Your task to perform on an android device: turn notification dots on Image 0: 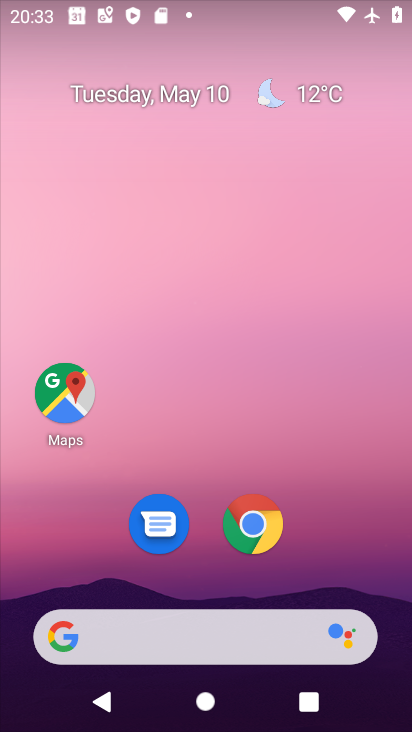
Step 0: drag from (328, 519) to (331, 4)
Your task to perform on an android device: turn notification dots on Image 1: 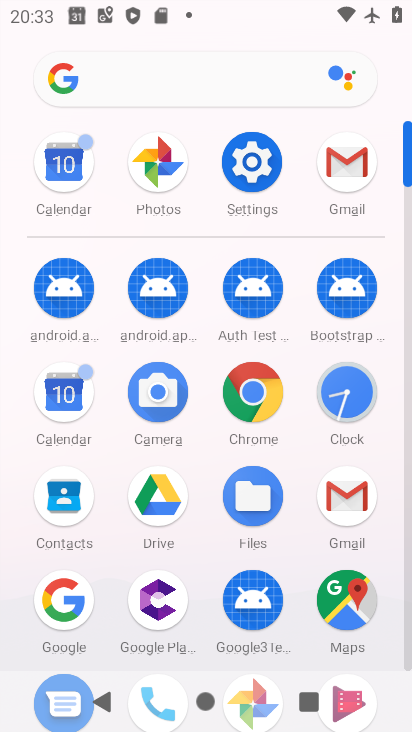
Step 1: click (252, 155)
Your task to perform on an android device: turn notification dots on Image 2: 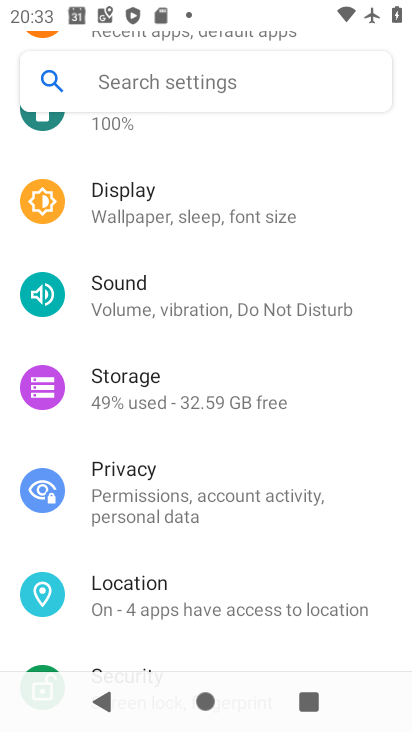
Step 2: drag from (221, 245) to (224, 581)
Your task to perform on an android device: turn notification dots on Image 3: 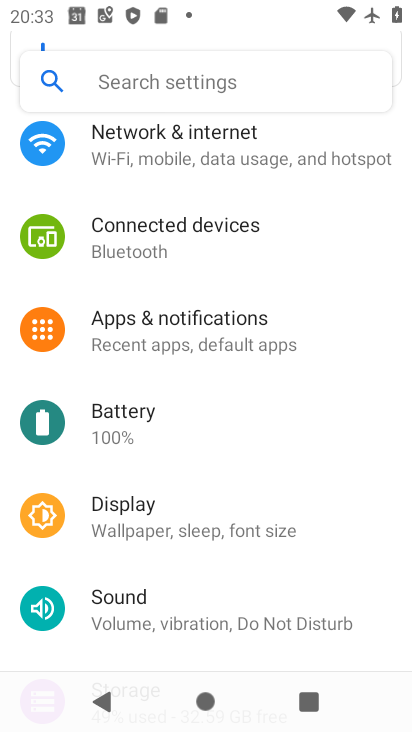
Step 3: click (218, 333)
Your task to perform on an android device: turn notification dots on Image 4: 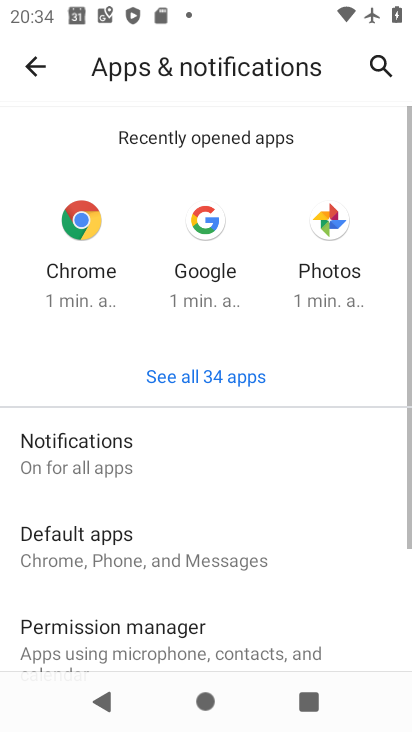
Step 4: click (135, 448)
Your task to perform on an android device: turn notification dots on Image 5: 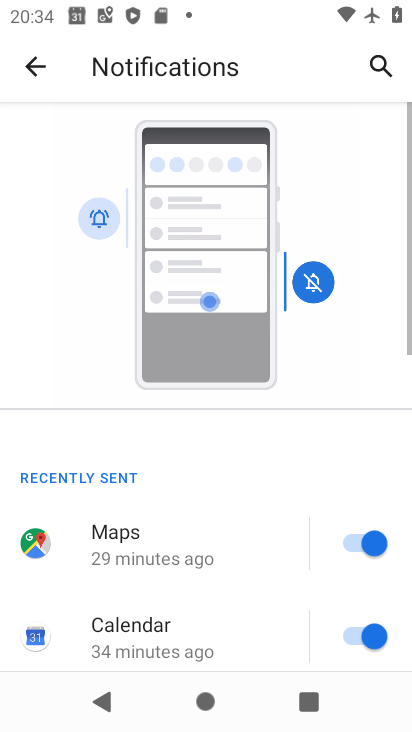
Step 5: drag from (240, 557) to (262, 145)
Your task to perform on an android device: turn notification dots on Image 6: 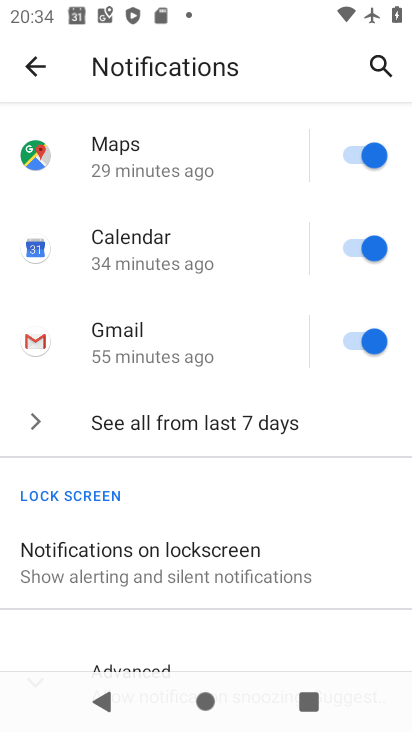
Step 6: drag from (199, 471) to (196, 150)
Your task to perform on an android device: turn notification dots on Image 7: 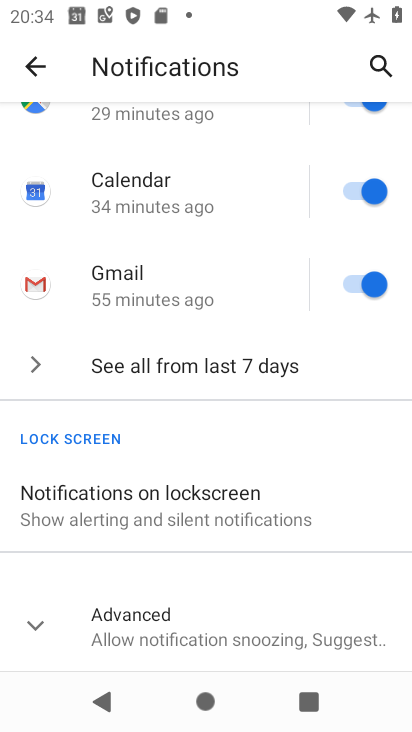
Step 7: click (34, 618)
Your task to perform on an android device: turn notification dots on Image 8: 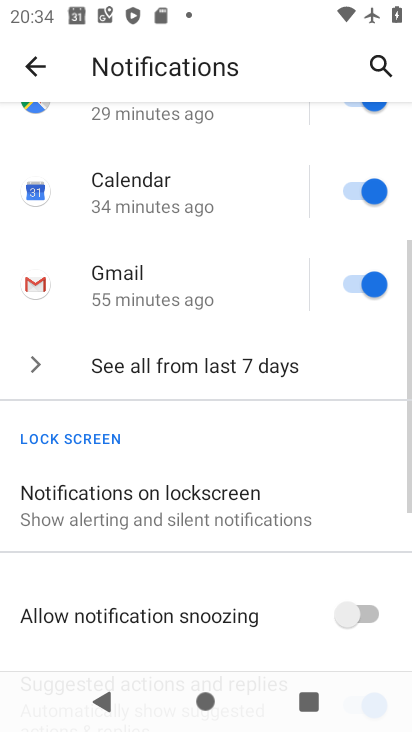
Step 8: task complete